Your task to perform on an android device: set an alarm Image 0: 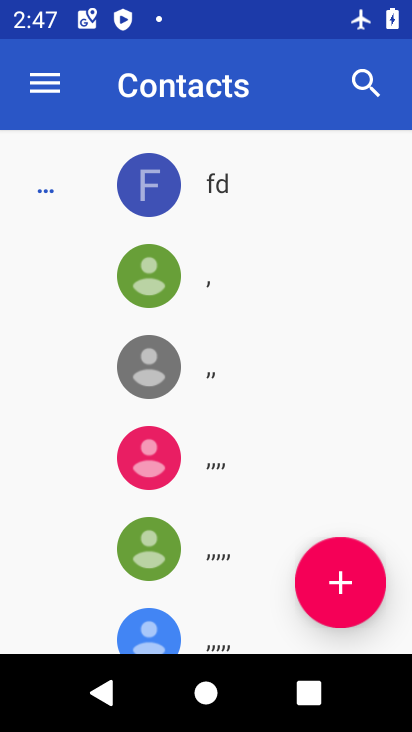
Step 0: press home button
Your task to perform on an android device: set an alarm Image 1: 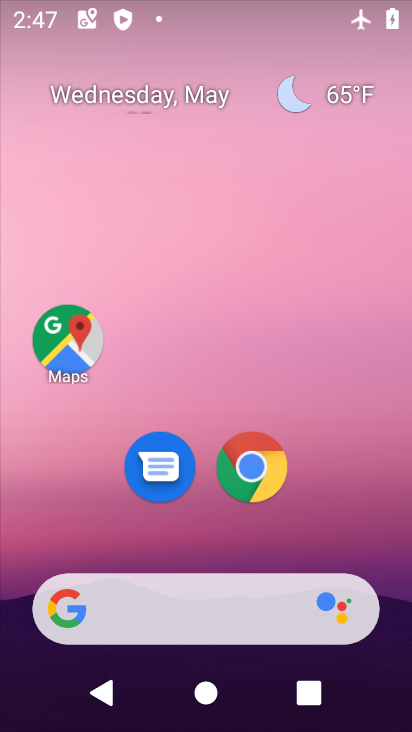
Step 1: drag from (313, 541) to (323, 305)
Your task to perform on an android device: set an alarm Image 2: 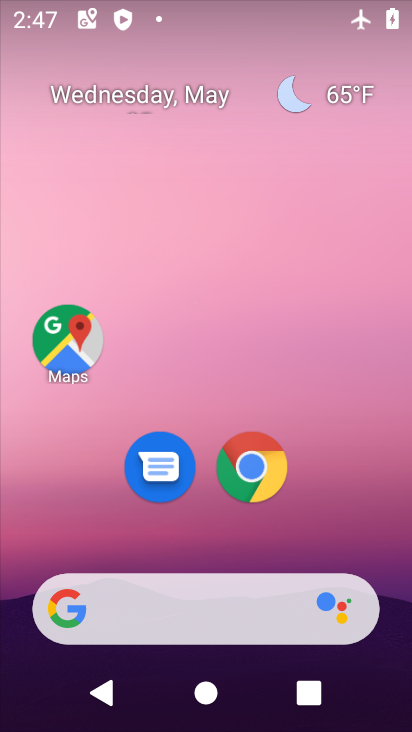
Step 2: drag from (334, 482) to (342, 300)
Your task to perform on an android device: set an alarm Image 3: 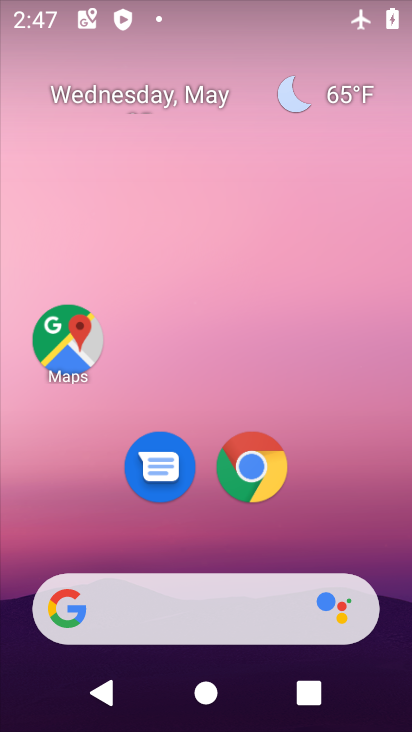
Step 3: drag from (322, 499) to (365, 195)
Your task to perform on an android device: set an alarm Image 4: 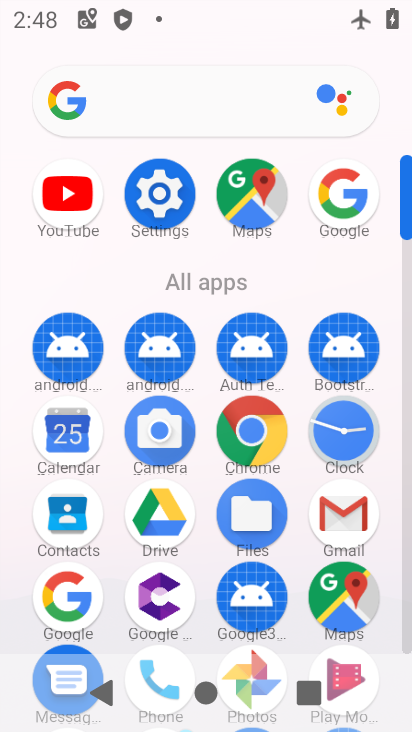
Step 4: click (338, 425)
Your task to perform on an android device: set an alarm Image 5: 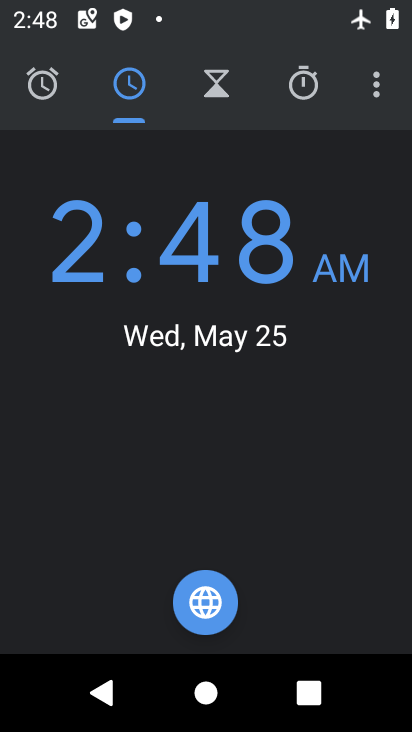
Step 5: click (56, 86)
Your task to perform on an android device: set an alarm Image 6: 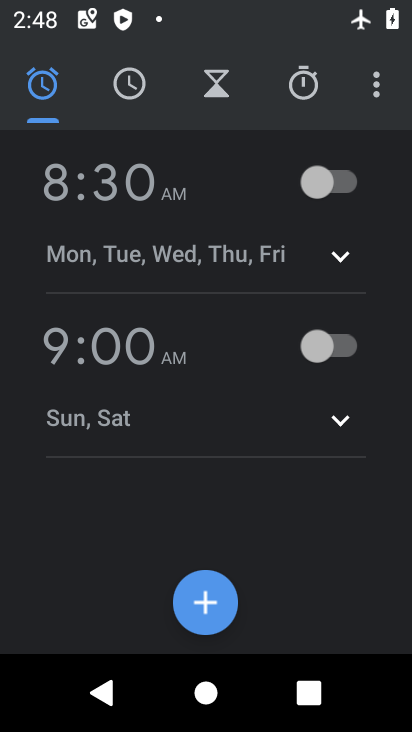
Step 6: click (315, 178)
Your task to perform on an android device: set an alarm Image 7: 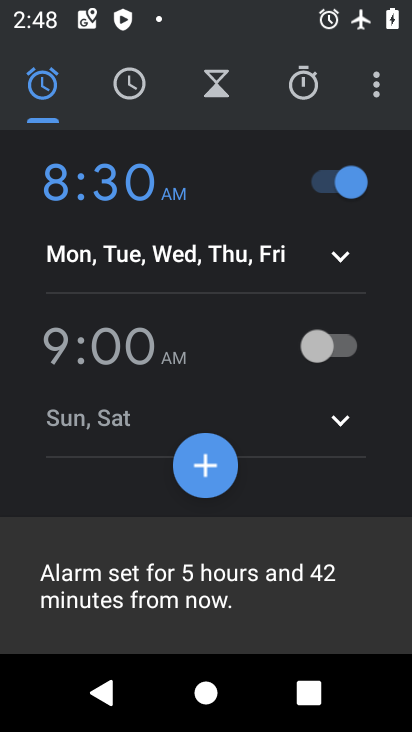
Step 7: task complete